Your task to perform on an android device: Open Youtube and go to "Your channel" Image 0: 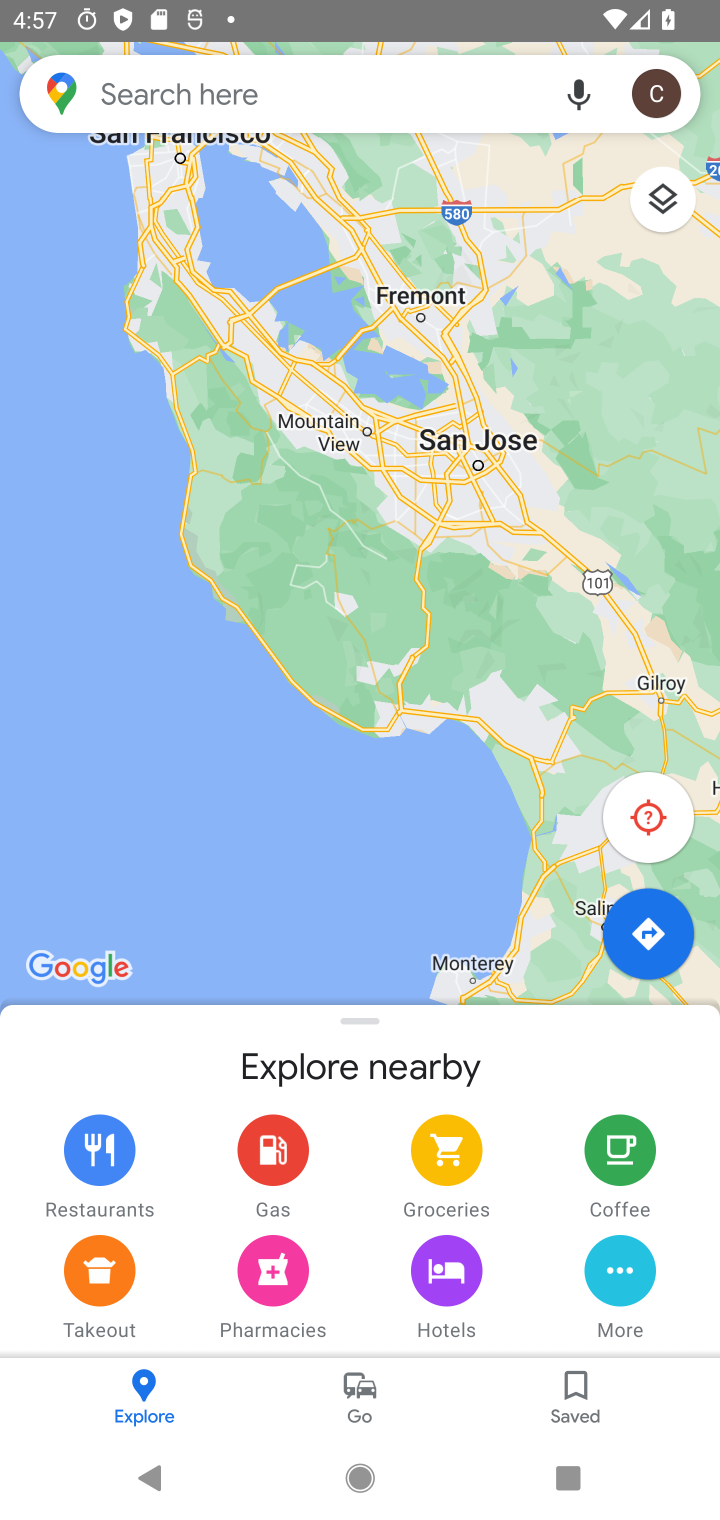
Step 0: press home button
Your task to perform on an android device: Open Youtube and go to "Your channel" Image 1: 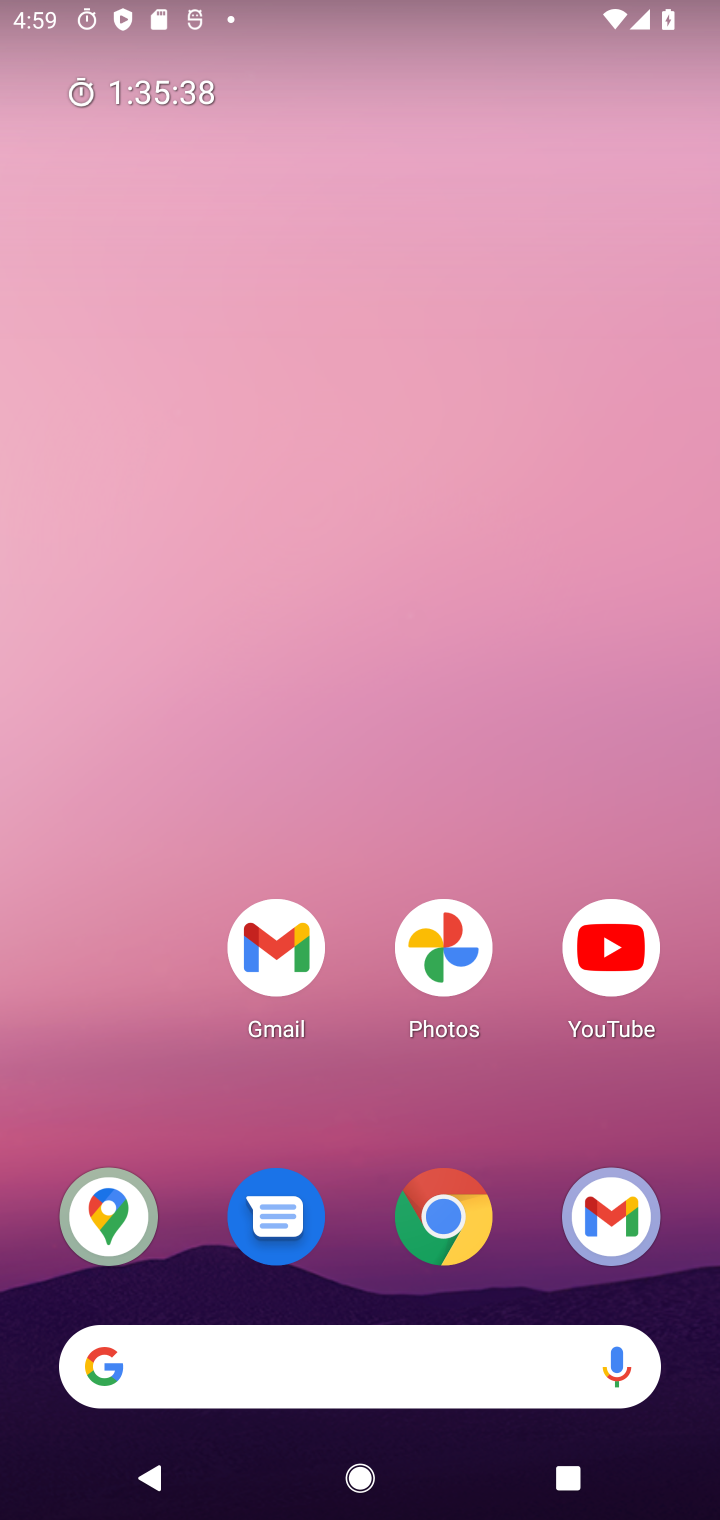
Step 1: click (624, 934)
Your task to perform on an android device: Open Youtube and go to "Your channel" Image 2: 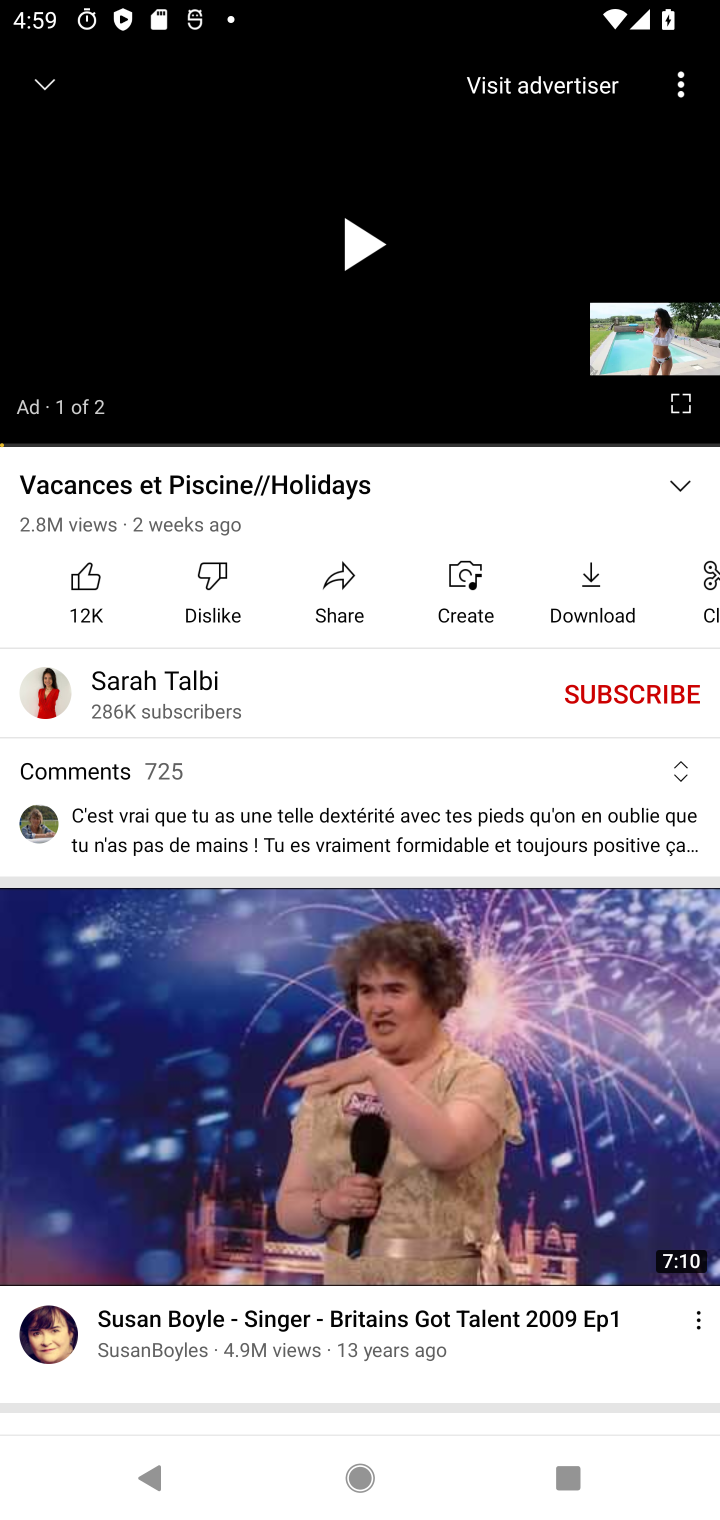
Step 2: click (121, 1474)
Your task to perform on an android device: Open Youtube and go to "Your channel" Image 3: 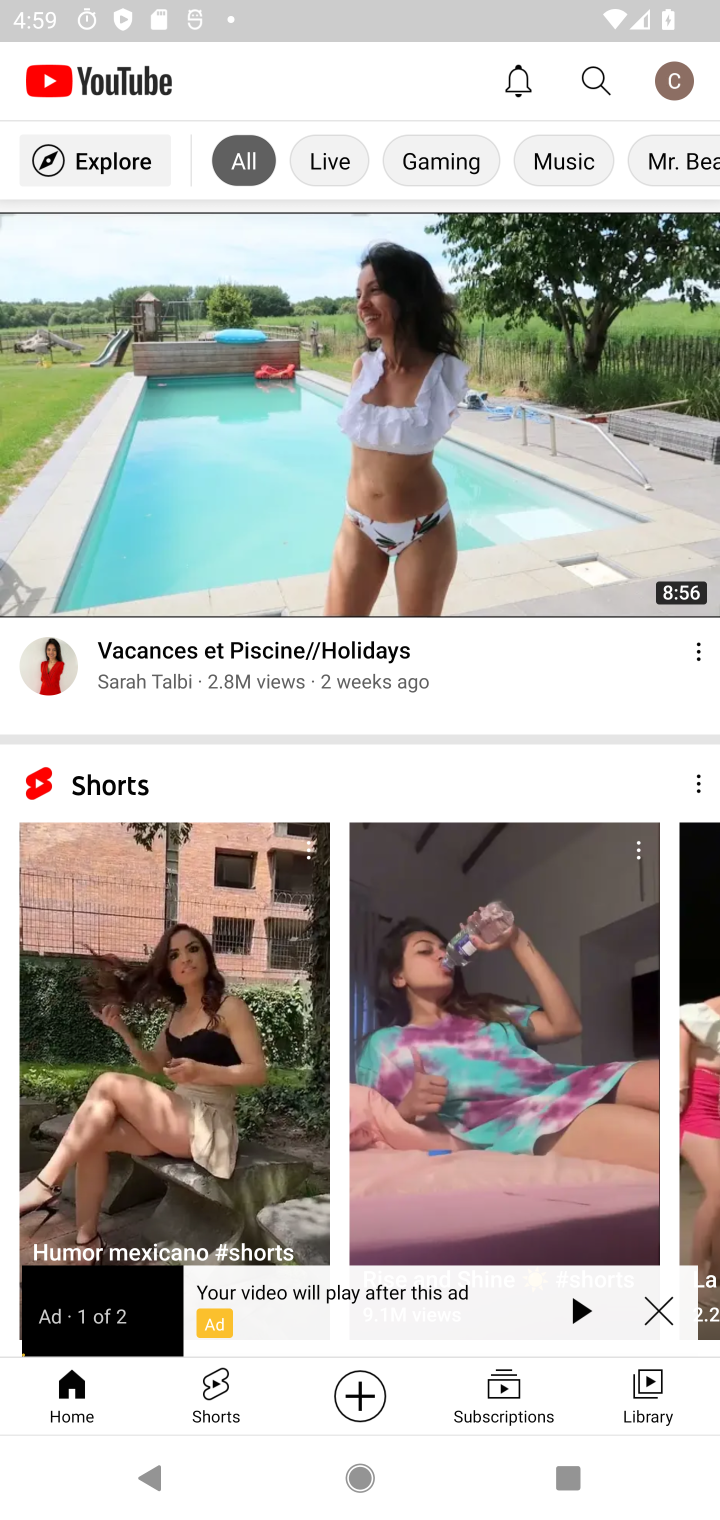
Step 3: task complete